Your task to perform on an android device: open chrome privacy settings Image 0: 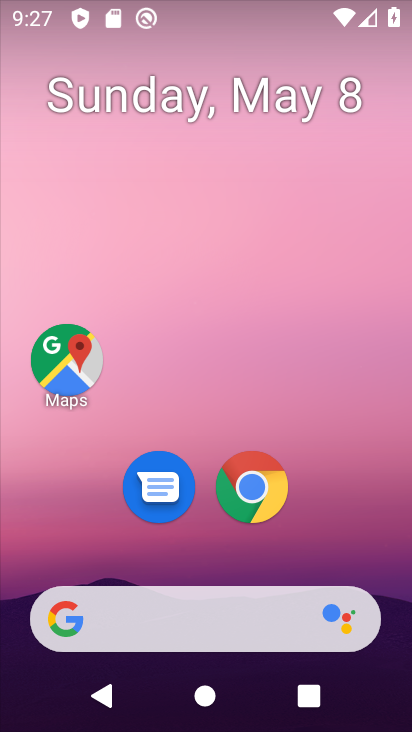
Step 0: click (253, 486)
Your task to perform on an android device: open chrome privacy settings Image 1: 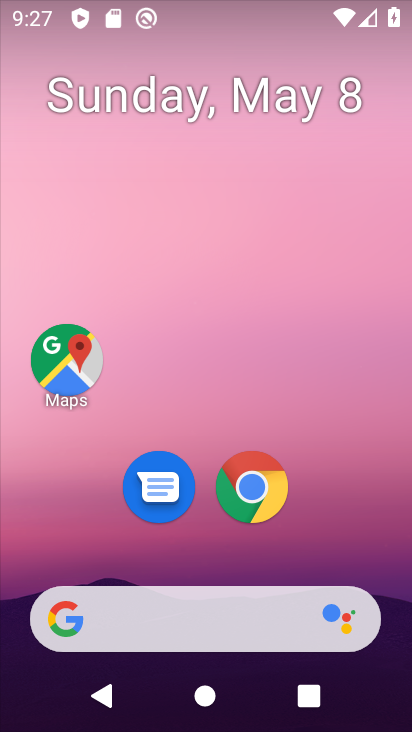
Step 1: click (253, 486)
Your task to perform on an android device: open chrome privacy settings Image 2: 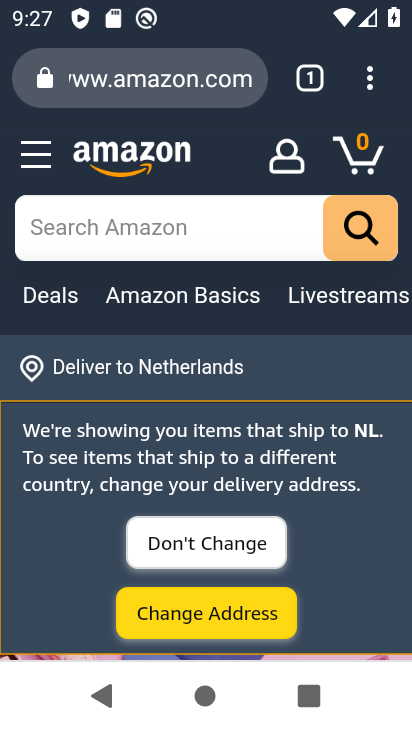
Step 2: drag from (385, 99) to (285, 558)
Your task to perform on an android device: open chrome privacy settings Image 3: 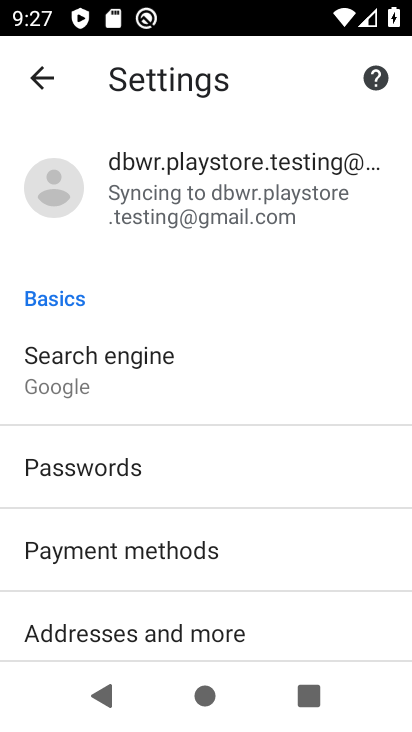
Step 3: drag from (274, 601) to (334, 323)
Your task to perform on an android device: open chrome privacy settings Image 4: 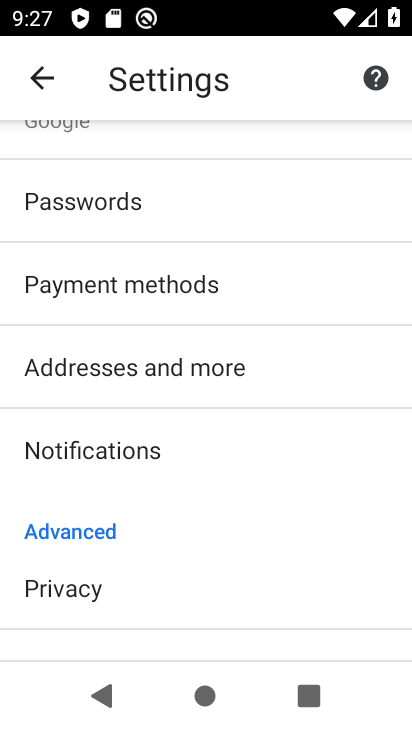
Step 4: click (226, 603)
Your task to perform on an android device: open chrome privacy settings Image 5: 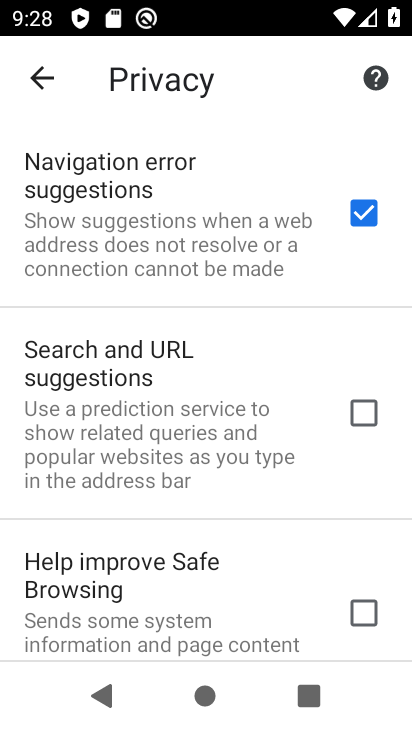
Step 5: task complete